Your task to perform on an android device: Set an alarm for 7am Image 0: 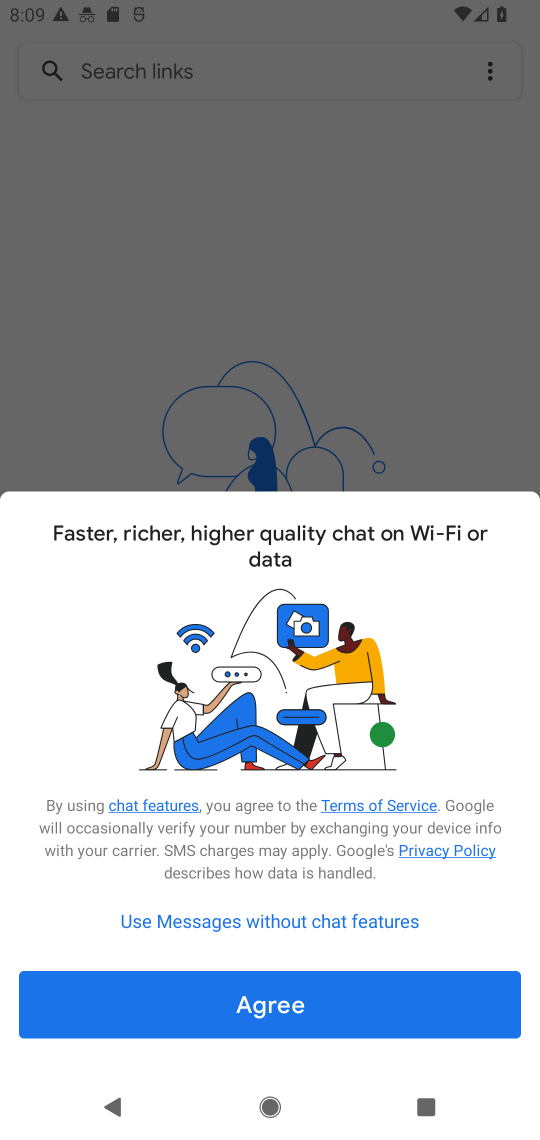
Step 0: press home button
Your task to perform on an android device: Set an alarm for 7am Image 1: 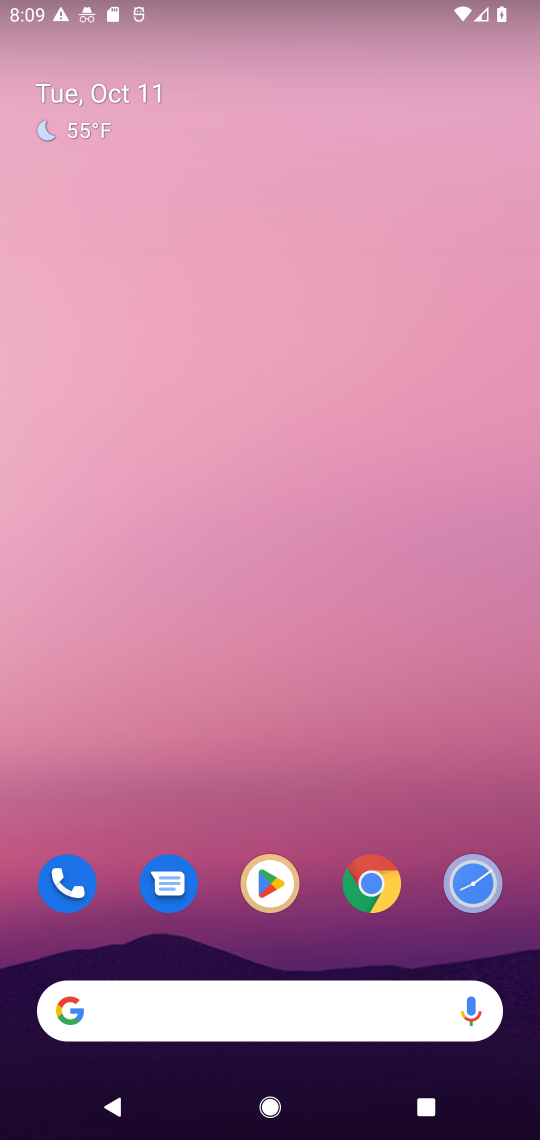
Step 1: drag from (337, 949) to (278, 78)
Your task to perform on an android device: Set an alarm for 7am Image 2: 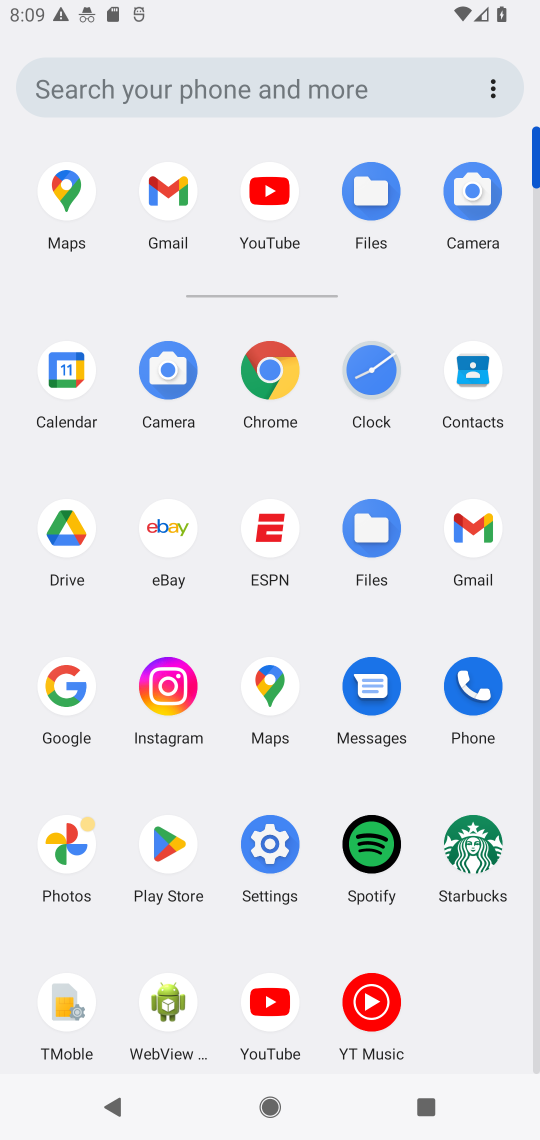
Step 2: click (399, 370)
Your task to perform on an android device: Set an alarm for 7am Image 3: 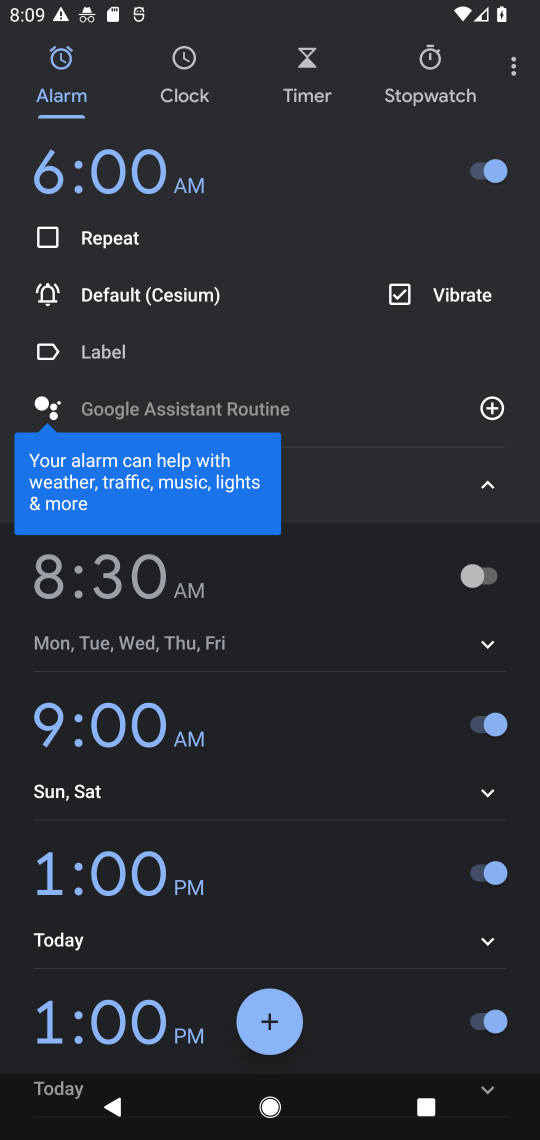
Step 3: click (280, 1026)
Your task to perform on an android device: Set an alarm for 7am Image 4: 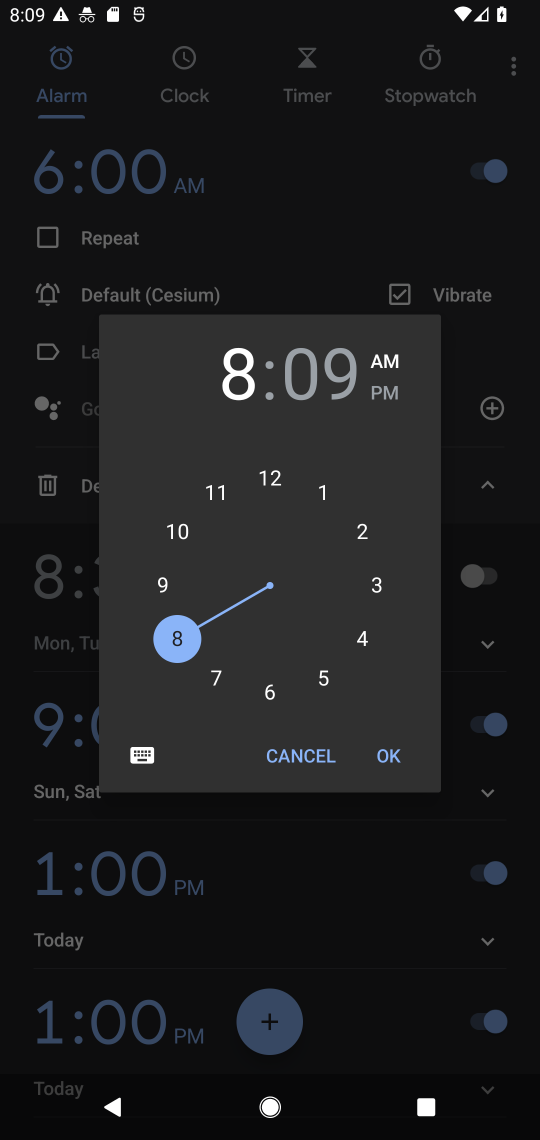
Step 4: click (214, 678)
Your task to perform on an android device: Set an alarm for 7am Image 5: 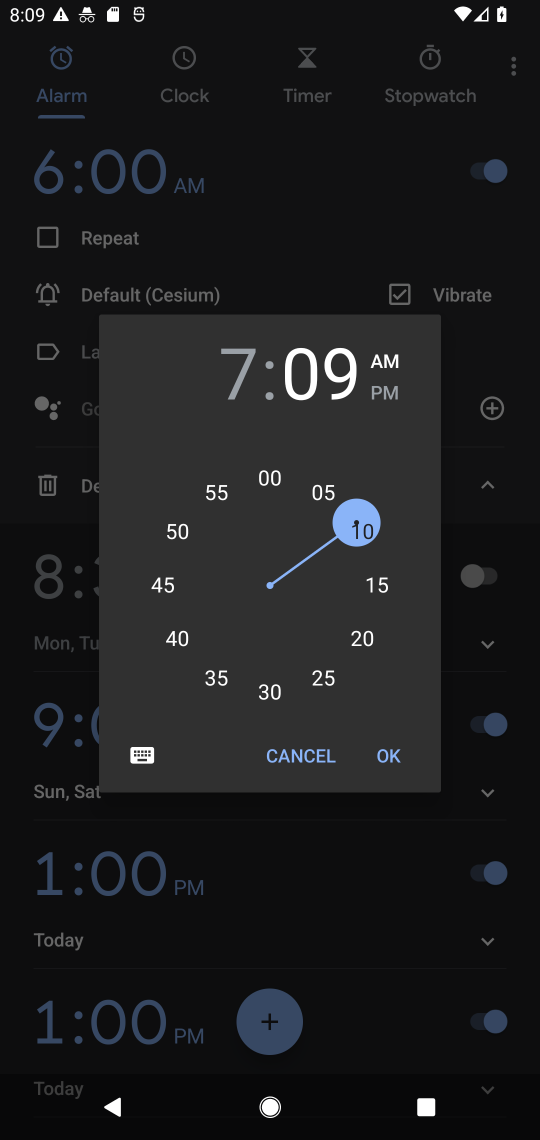
Step 5: click (263, 477)
Your task to perform on an android device: Set an alarm for 7am Image 6: 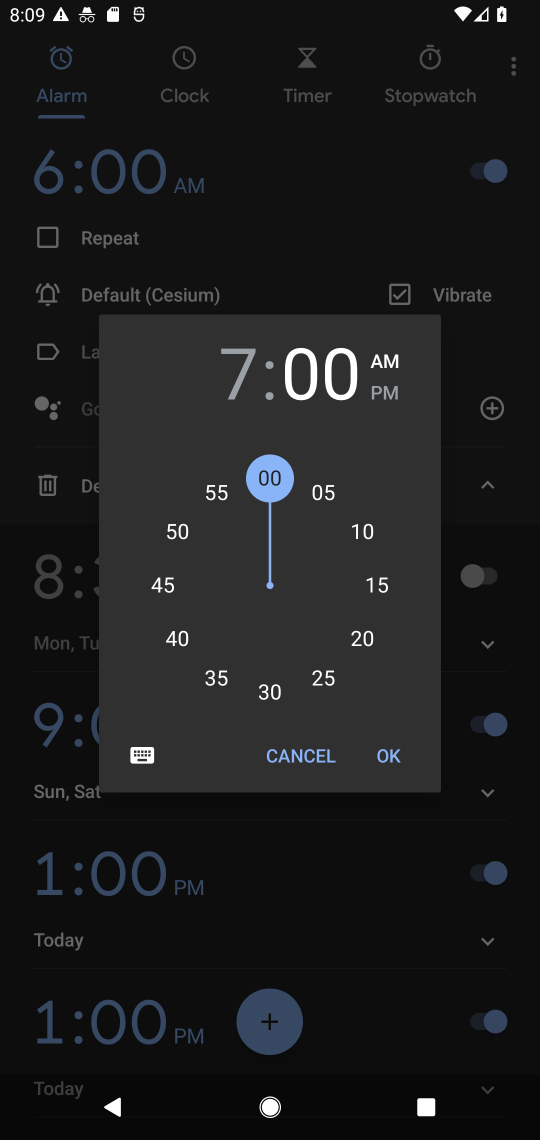
Step 6: click (394, 753)
Your task to perform on an android device: Set an alarm for 7am Image 7: 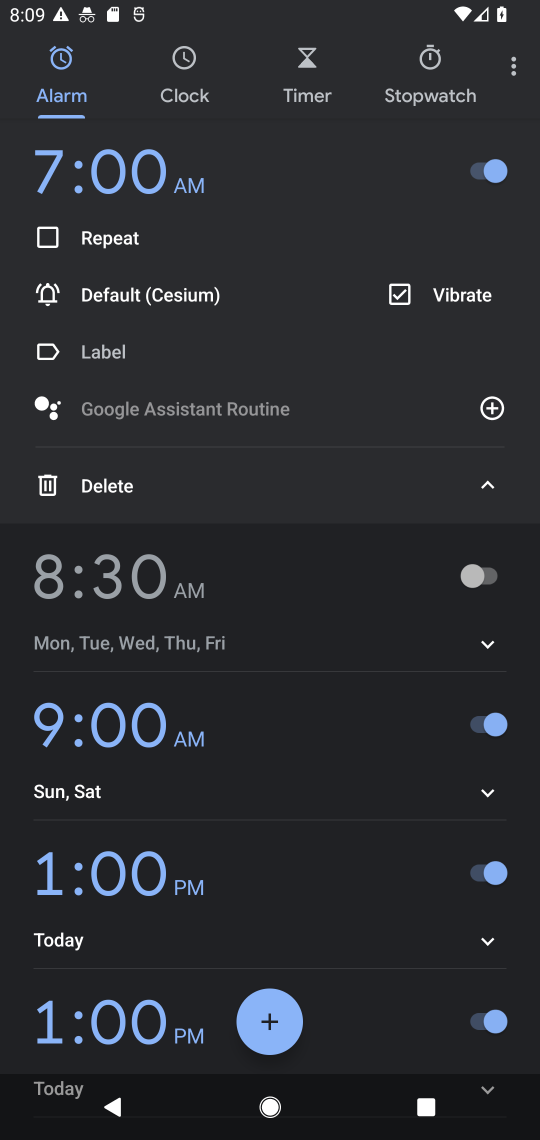
Step 7: task complete